Your task to perform on an android device: change keyboard looks Image 0: 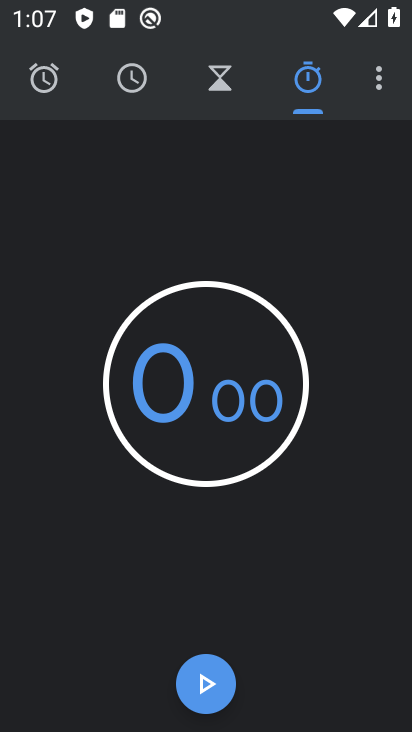
Step 0: drag from (397, 620) to (325, 195)
Your task to perform on an android device: change keyboard looks Image 1: 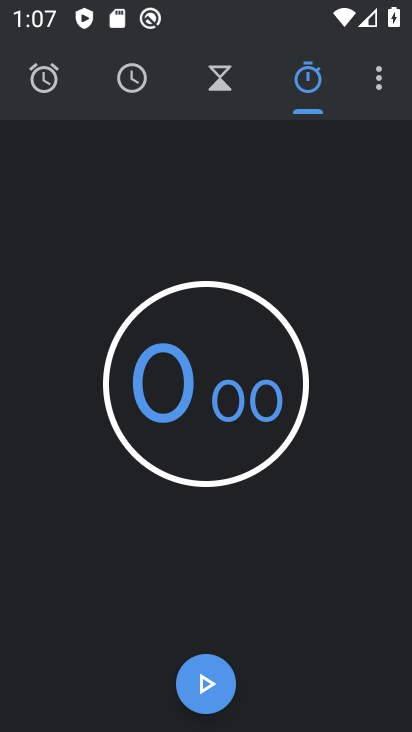
Step 1: press home button
Your task to perform on an android device: change keyboard looks Image 2: 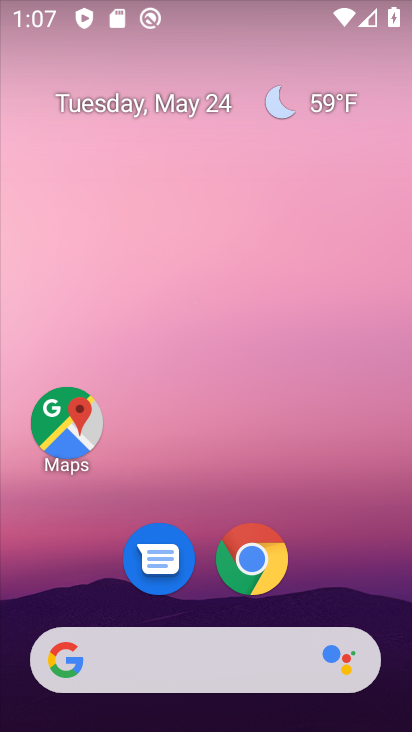
Step 2: drag from (388, 664) to (269, 67)
Your task to perform on an android device: change keyboard looks Image 3: 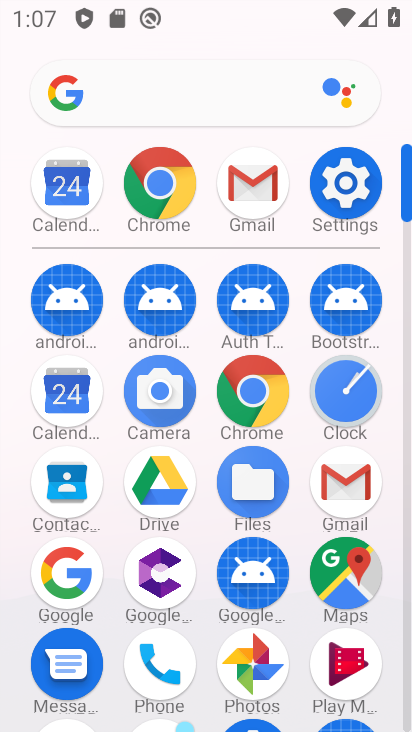
Step 3: click (358, 198)
Your task to perform on an android device: change keyboard looks Image 4: 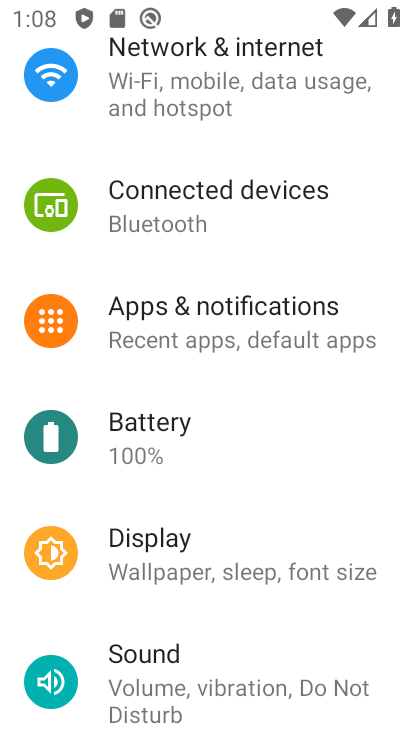
Step 4: drag from (136, 667) to (178, 89)
Your task to perform on an android device: change keyboard looks Image 5: 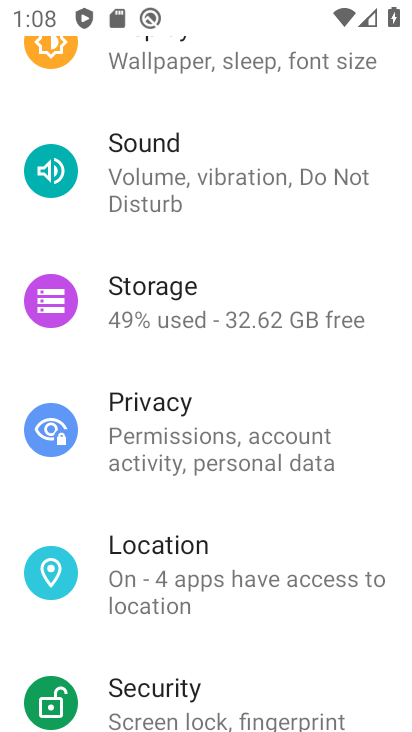
Step 5: drag from (145, 620) to (213, 117)
Your task to perform on an android device: change keyboard looks Image 6: 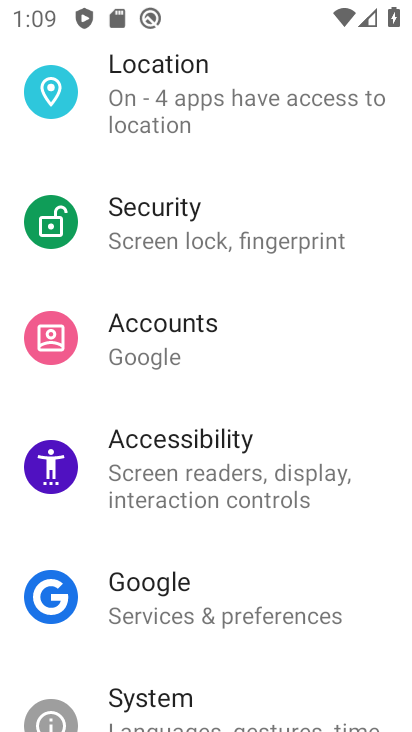
Step 6: drag from (162, 655) to (188, 88)
Your task to perform on an android device: change keyboard looks Image 7: 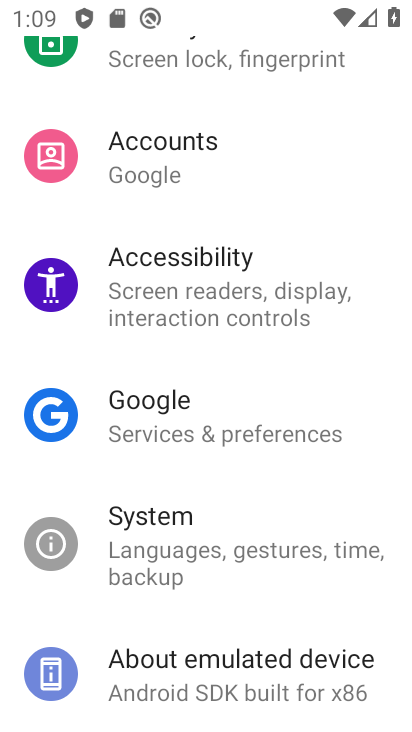
Step 7: click (209, 549)
Your task to perform on an android device: change keyboard looks Image 8: 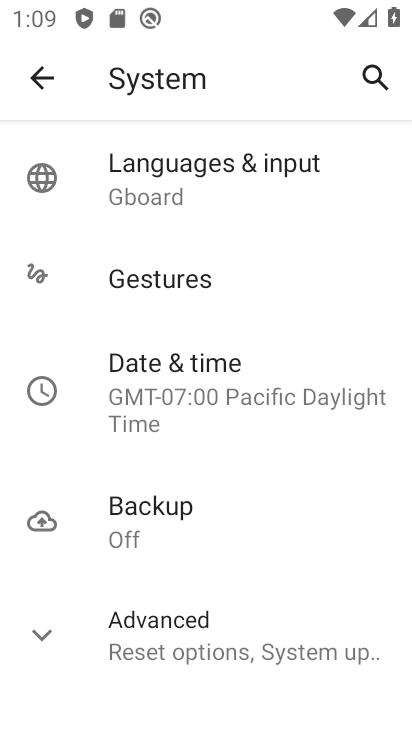
Step 8: click (273, 150)
Your task to perform on an android device: change keyboard looks Image 9: 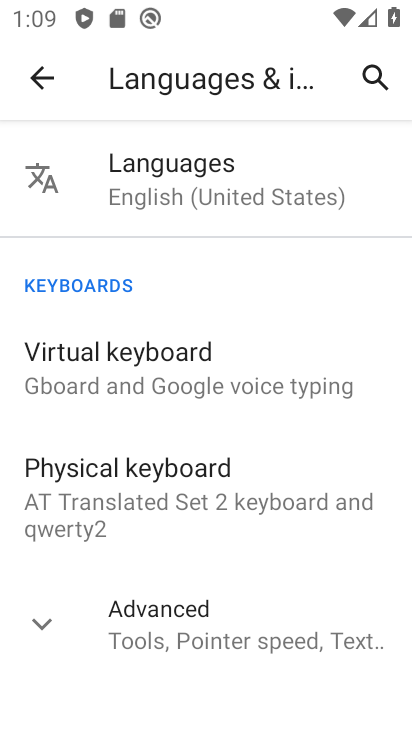
Step 9: click (182, 355)
Your task to perform on an android device: change keyboard looks Image 10: 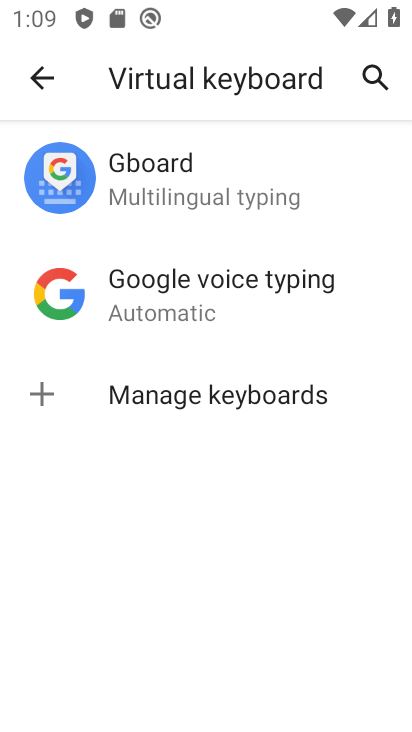
Step 10: click (176, 219)
Your task to perform on an android device: change keyboard looks Image 11: 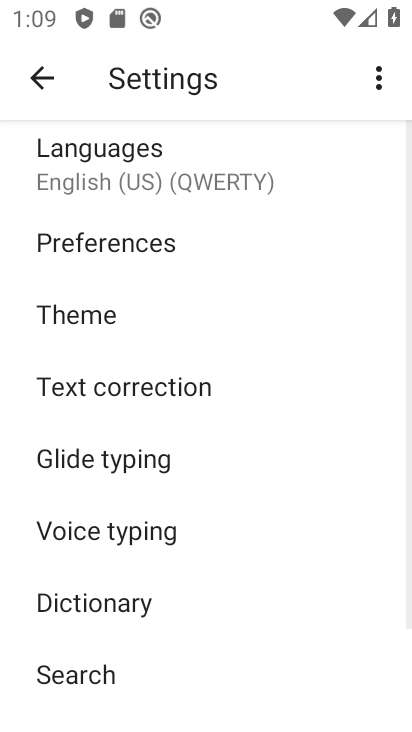
Step 11: click (146, 302)
Your task to perform on an android device: change keyboard looks Image 12: 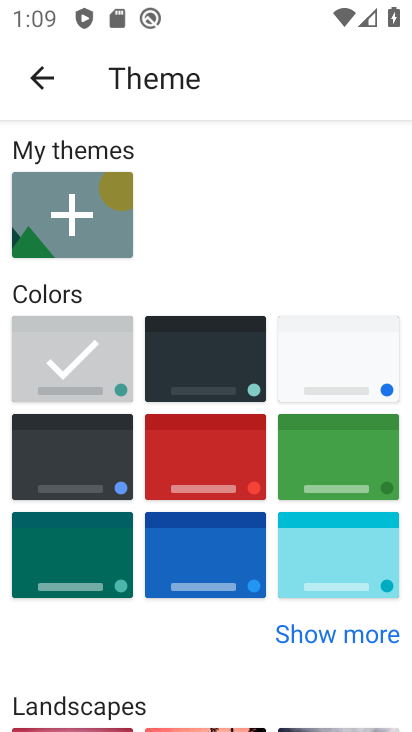
Step 12: click (323, 369)
Your task to perform on an android device: change keyboard looks Image 13: 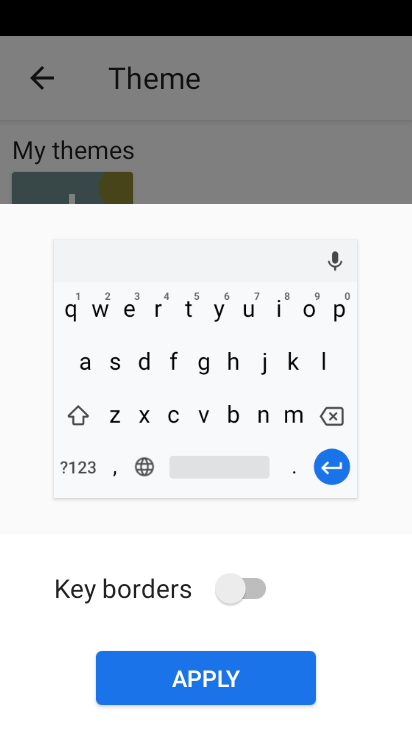
Step 13: click (211, 666)
Your task to perform on an android device: change keyboard looks Image 14: 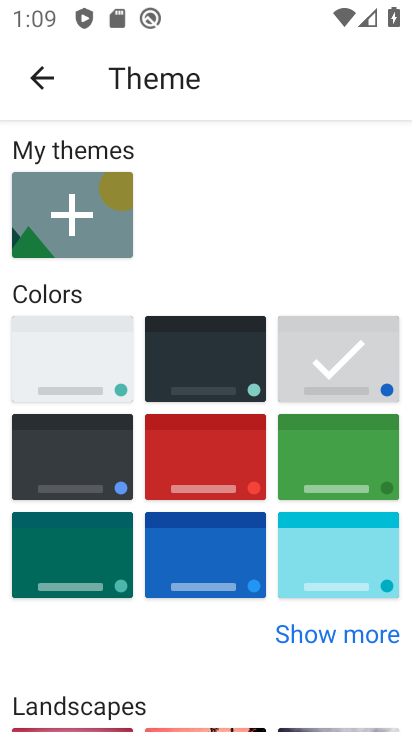
Step 14: task complete